Your task to perform on an android device: Open my contact list Image 0: 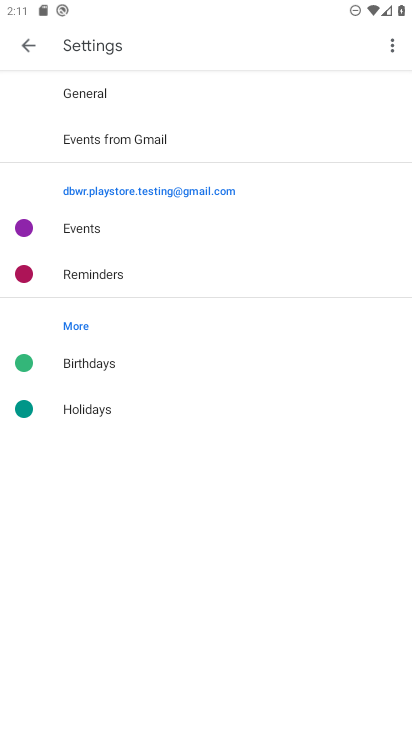
Step 0: press home button
Your task to perform on an android device: Open my contact list Image 1: 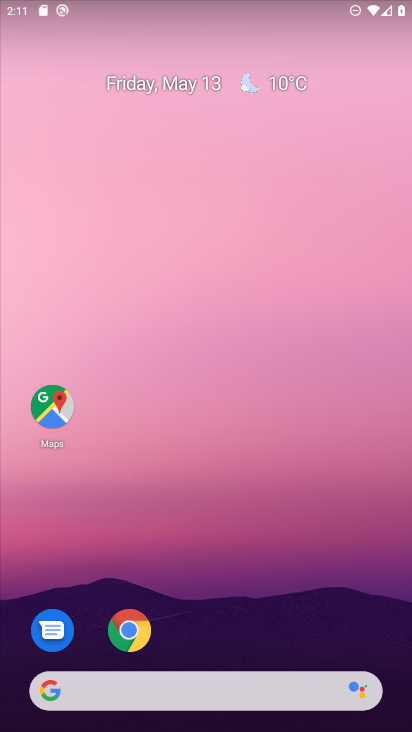
Step 1: drag from (214, 658) to (254, 76)
Your task to perform on an android device: Open my contact list Image 2: 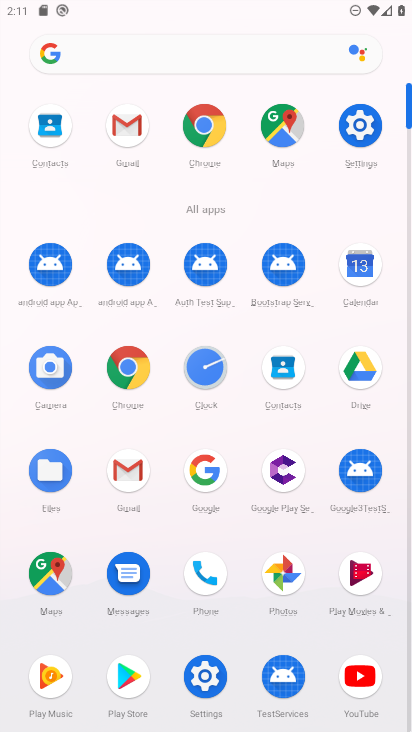
Step 2: click (283, 361)
Your task to perform on an android device: Open my contact list Image 3: 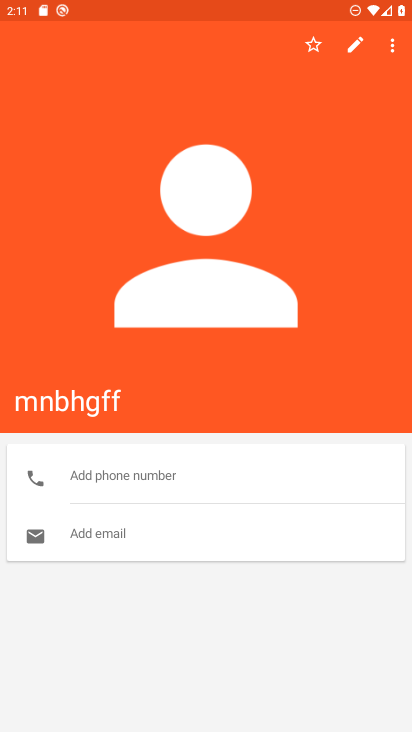
Step 3: press home button
Your task to perform on an android device: Open my contact list Image 4: 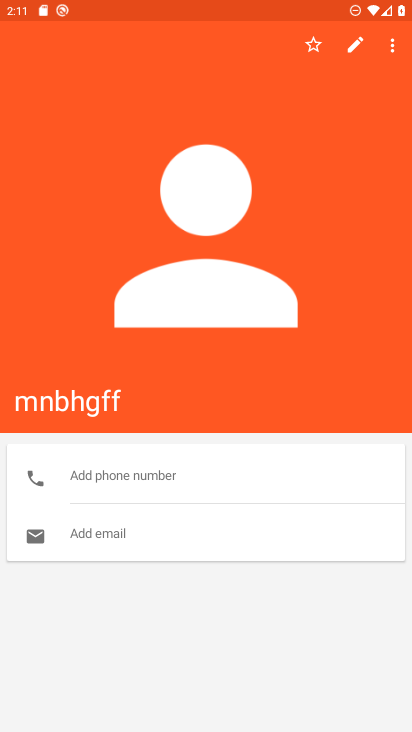
Step 4: press home button
Your task to perform on an android device: Open my contact list Image 5: 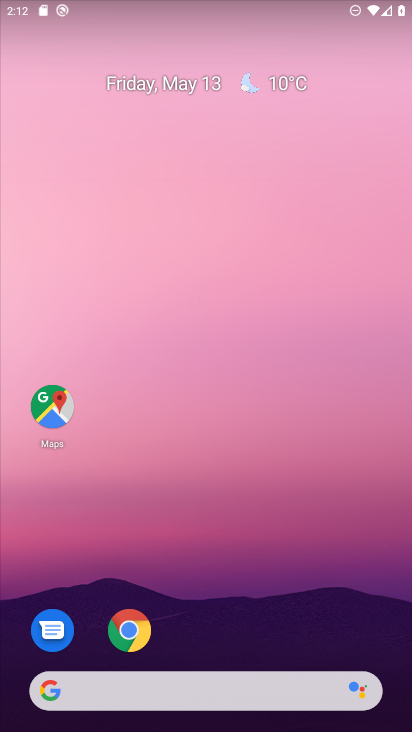
Step 5: drag from (224, 645) to (257, 92)
Your task to perform on an android device: Open my contact list Image 6: 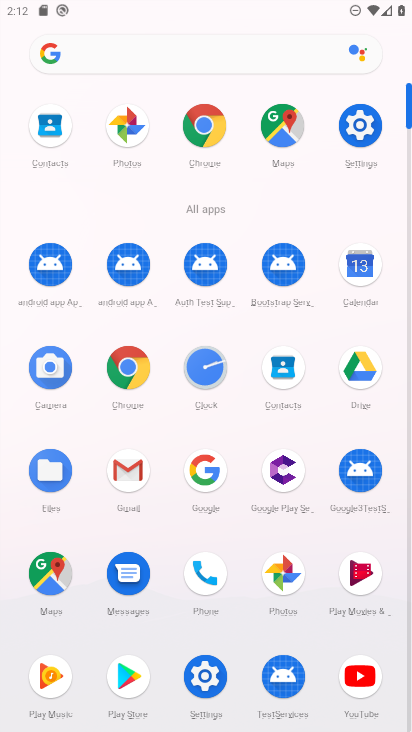
Step 6: click (283, 361)
Your task to perform on an android device: Open my contact list Image 7: 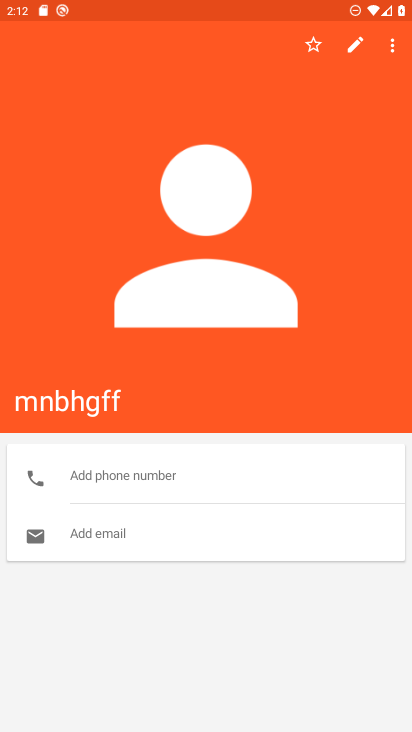
Step 7: press home button
Your task to perform on an android device: Open my contact list Image 8: 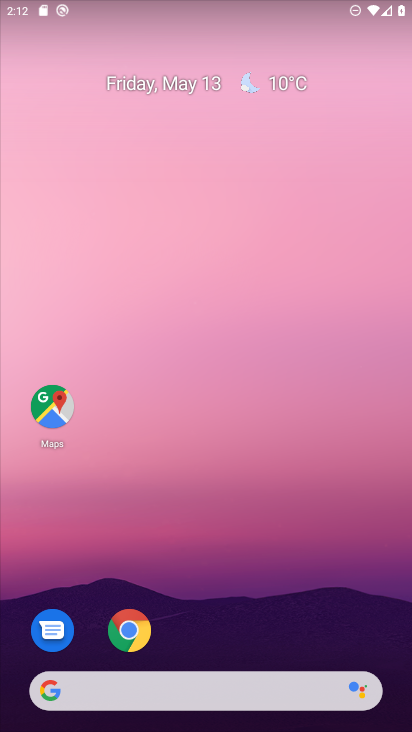
Step 8: drag from (224, 643) to (271, 38)
Your task to perform on an android device: Open my contact list Image 9: 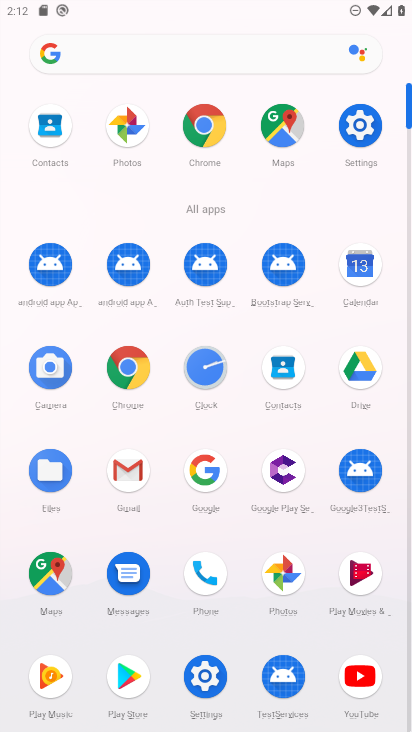
Step 9: click (280, 364)
Your task to perform on an android device: Open my contact list Image 10: 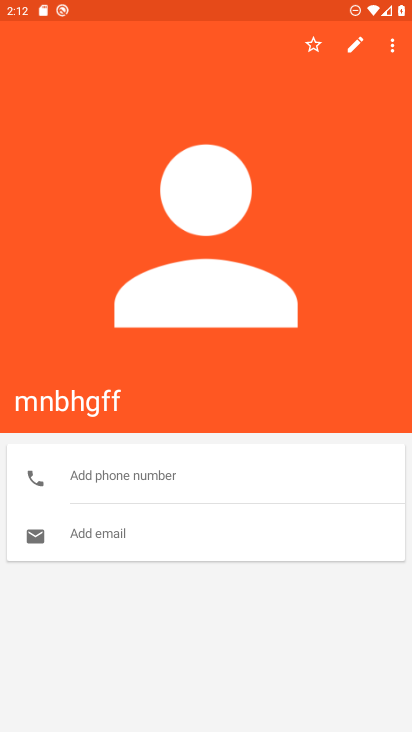
Step 10: task complete